Your task to perform on an android device: View the shopping cart on newegg. Add acer nitro to the cart on newegg, then select checkout. Image 0: 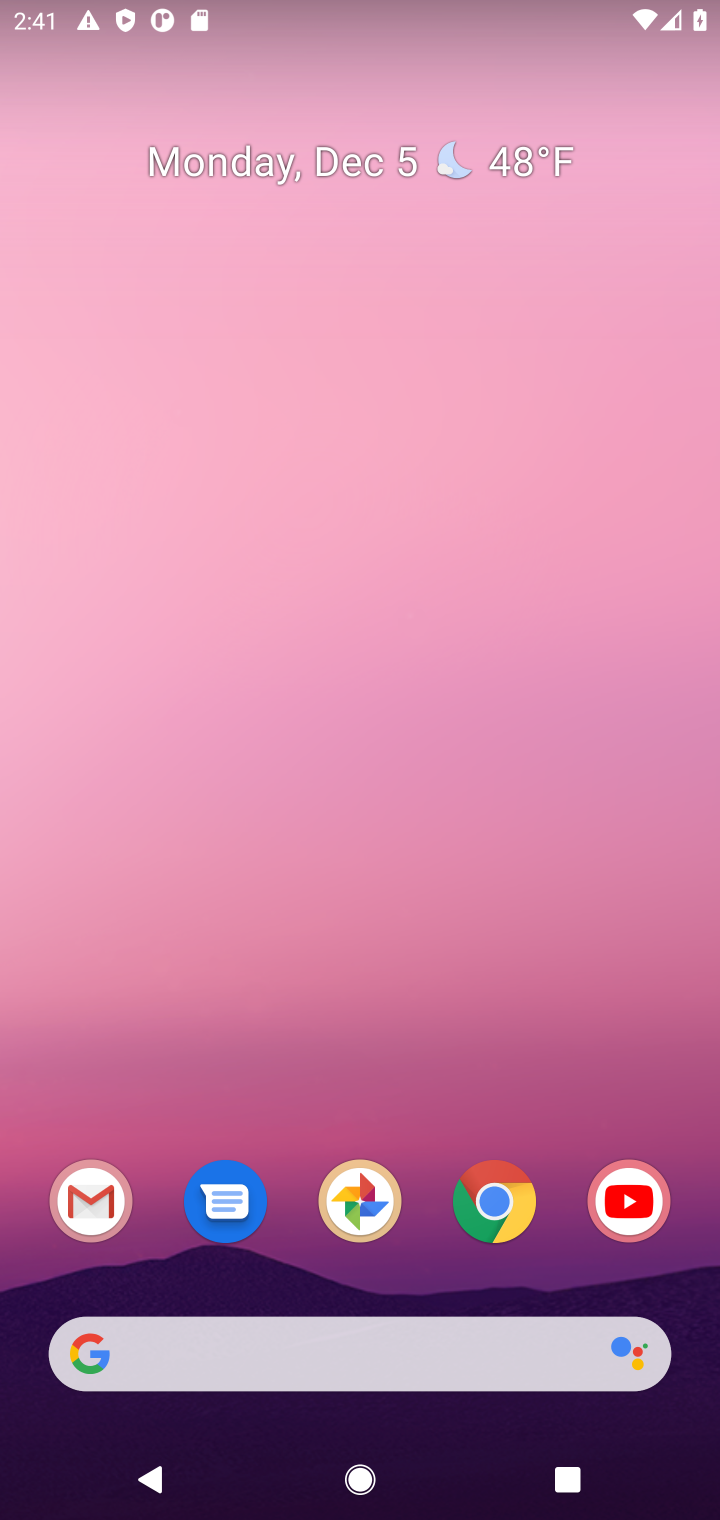
Step 0: click (479, 1211)
Your task to perform on an android device: View the shopping cart on newegg. Add acer nitro to the cart on newegg, then select checkout. Image 1: 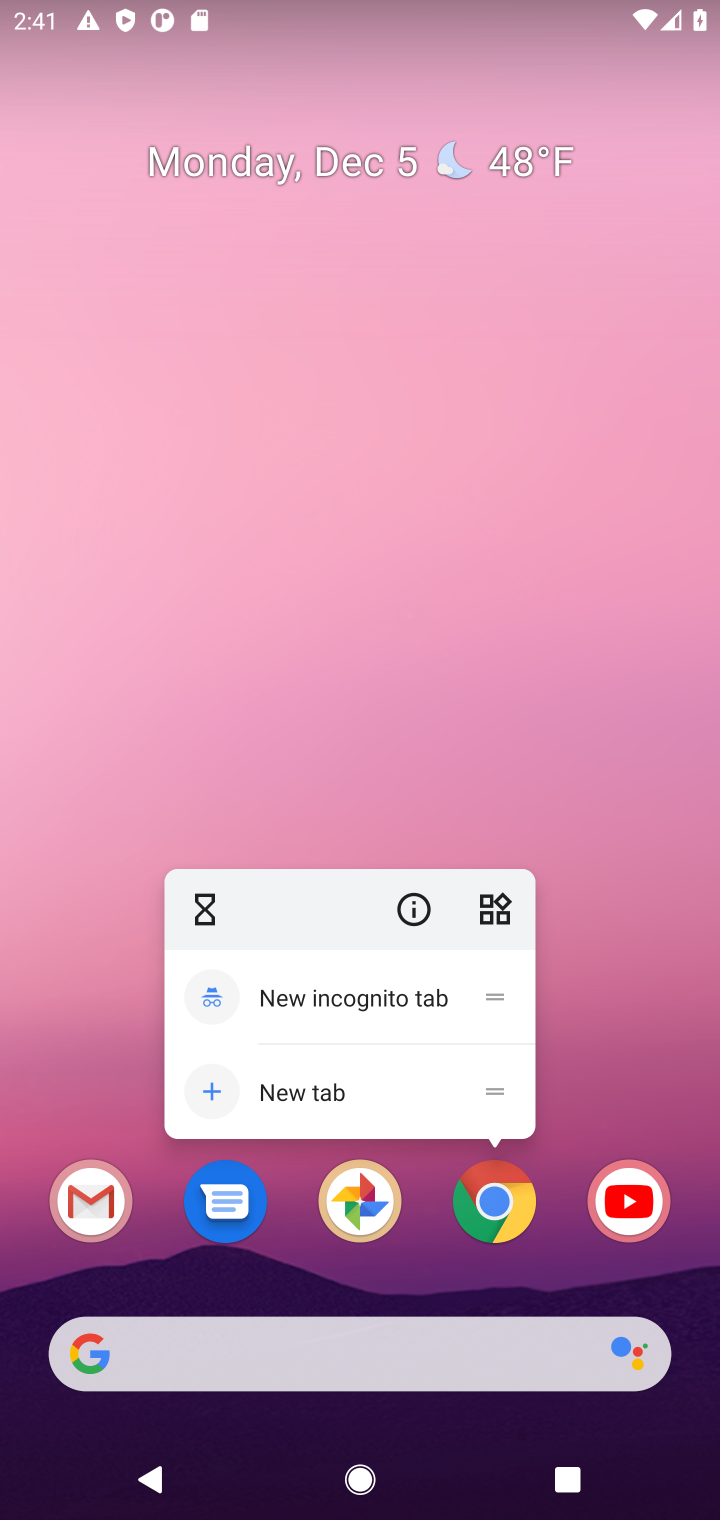
Step 1: click (503, 1198)
Your task to perform on an android device: View the shopping cart on newegg. Add acer nitro to the cart on newegg, then select checkout. Image 2: 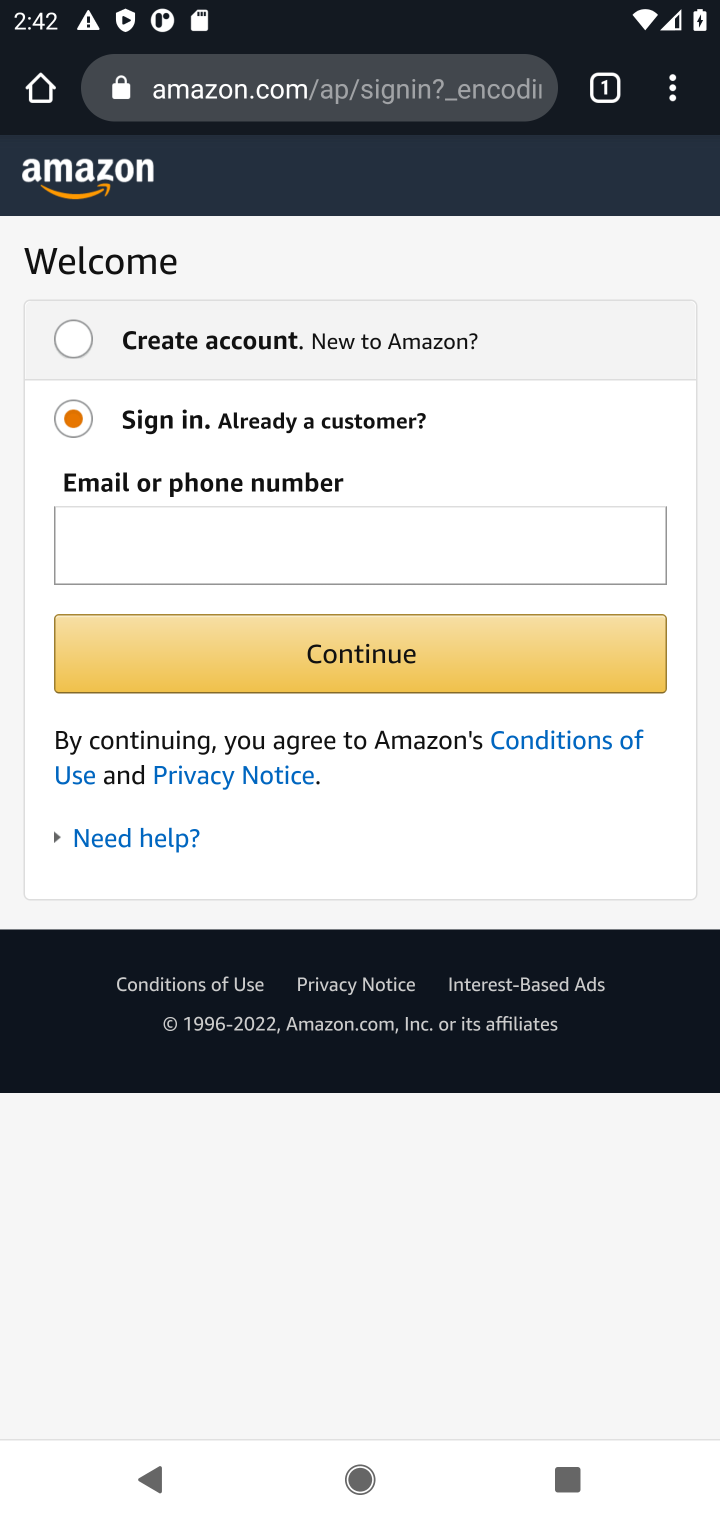
Step 2: click (363, 88)
Your task to perform on an android device: View the shopping cart on newegg. Add acer nitro to the cart on newegg, then select checkout. Image 3: 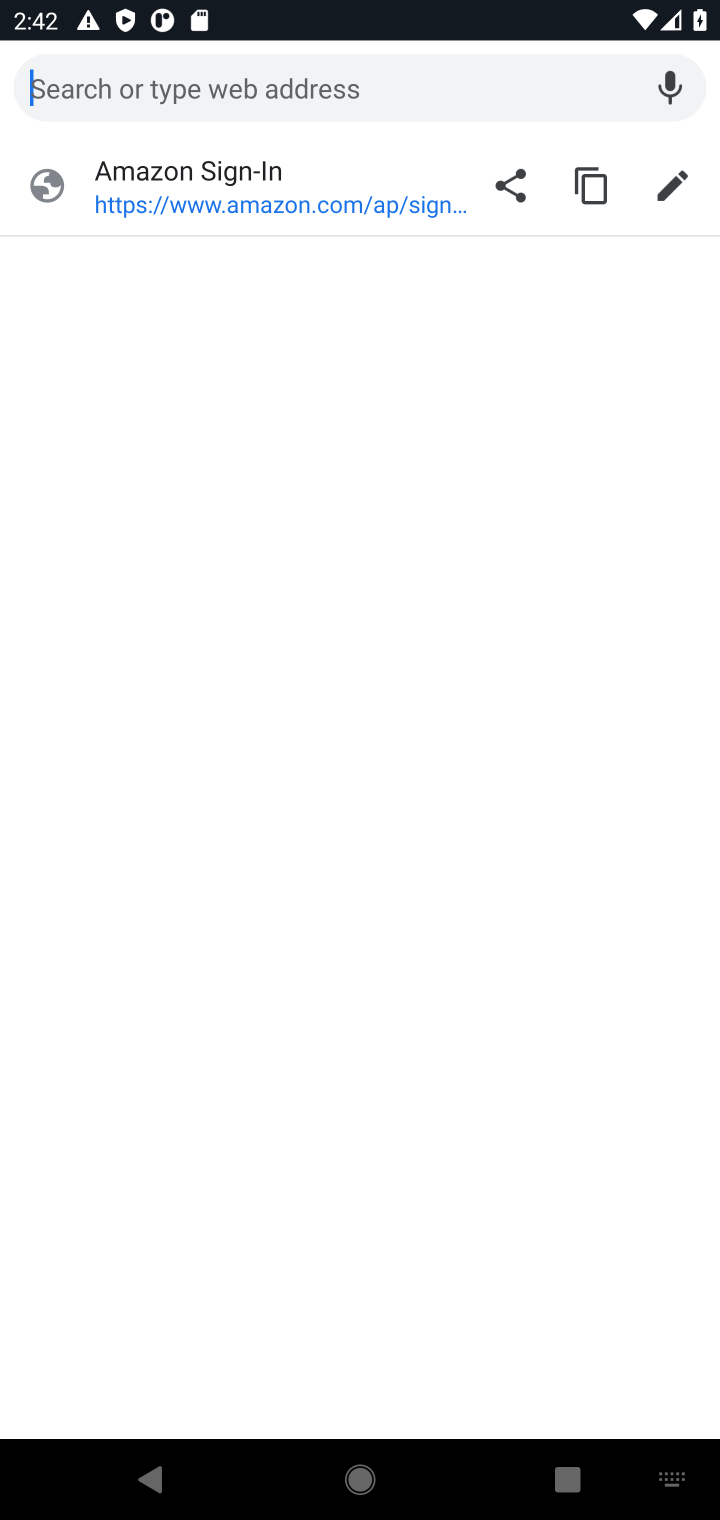
Step 3: type "newegg"
Your task to perform on an android device: View the shopping cart on newegg. Add acer nitro to the cart on newegg, then select checkout. Image 4: 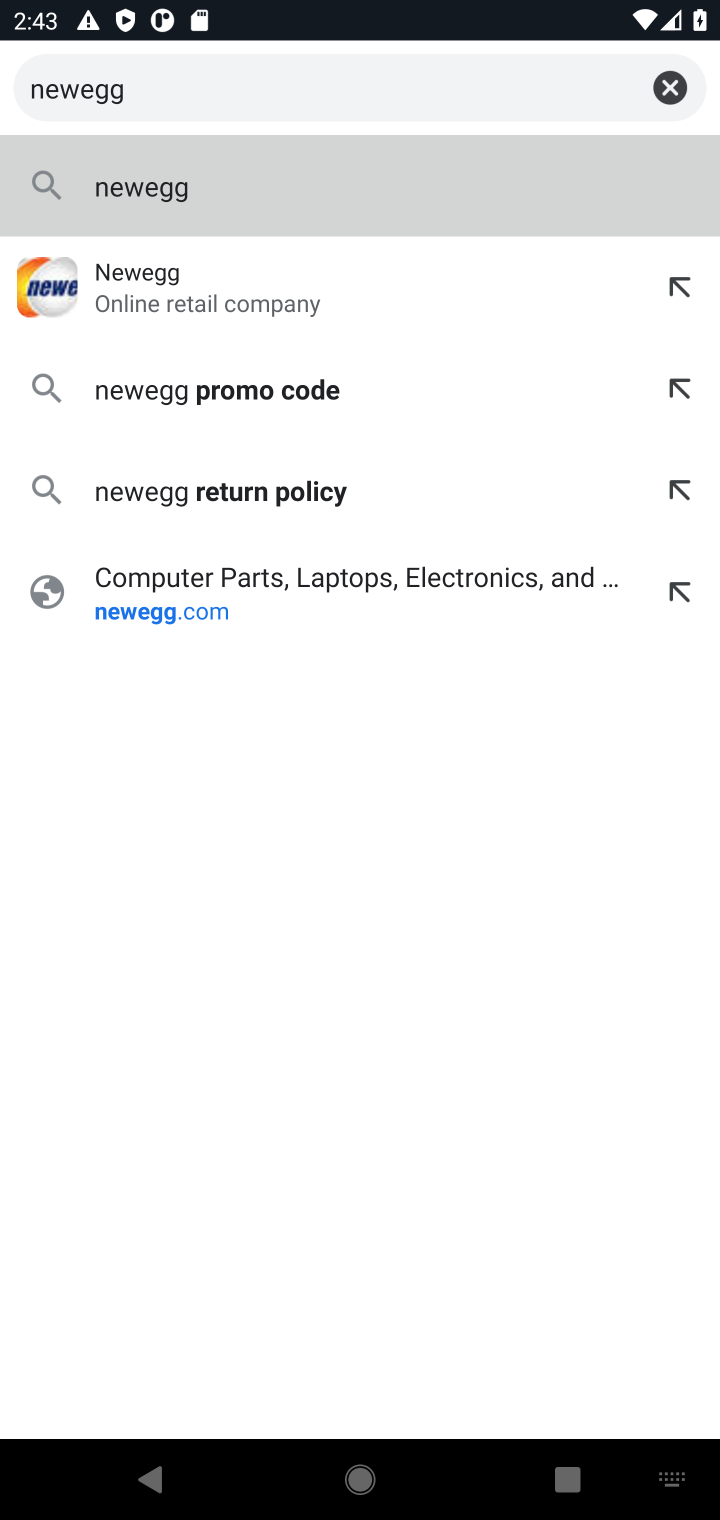
Step 4: click (205, 293)
Your task to perform on an android device: View the shopping cart on newegg. Add acer nitro to the cart on newegg, then select checkout. Image 5: 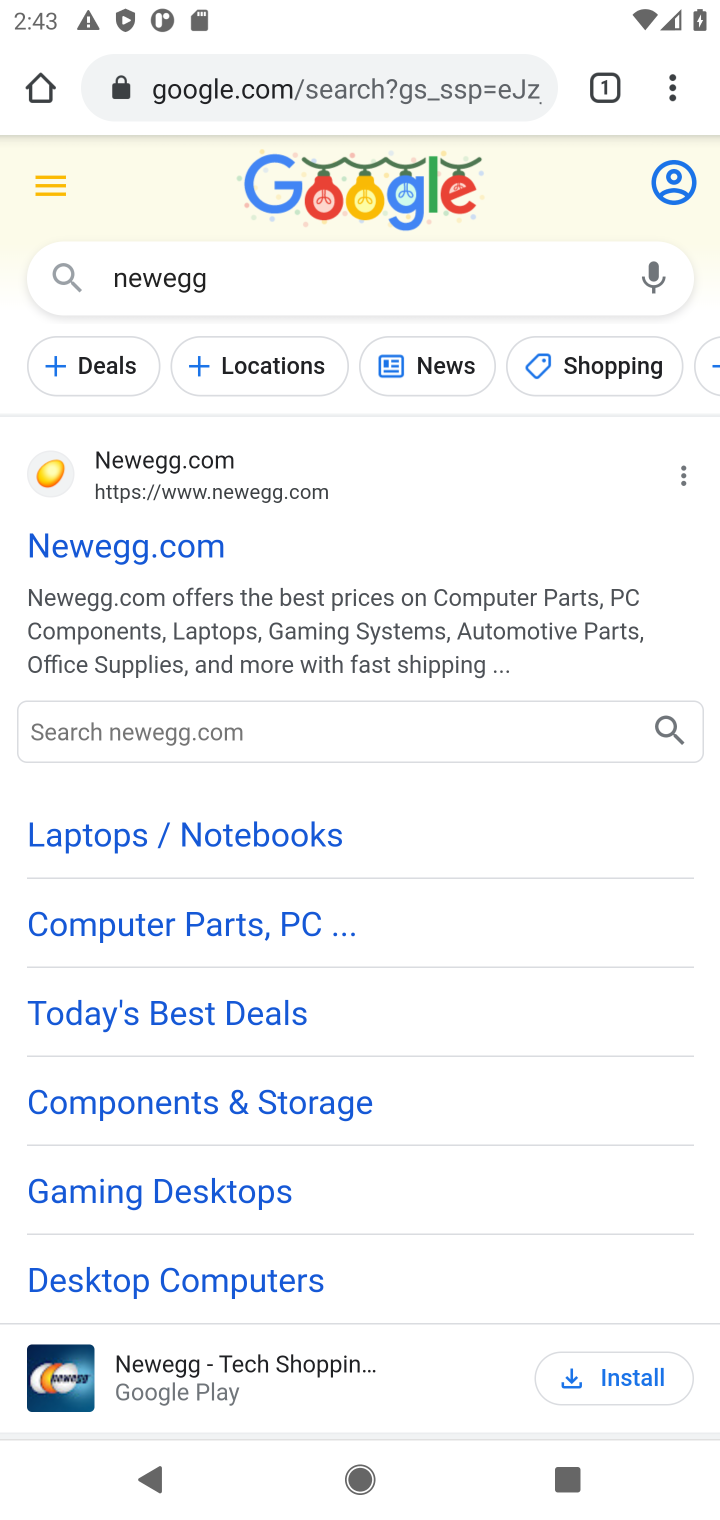
Step 5: click (163, 559)
Your task to perform on an android device: View the shopping cart on newegg. Add acer nitro to the cart on newegg, then select checkout. Image 6: 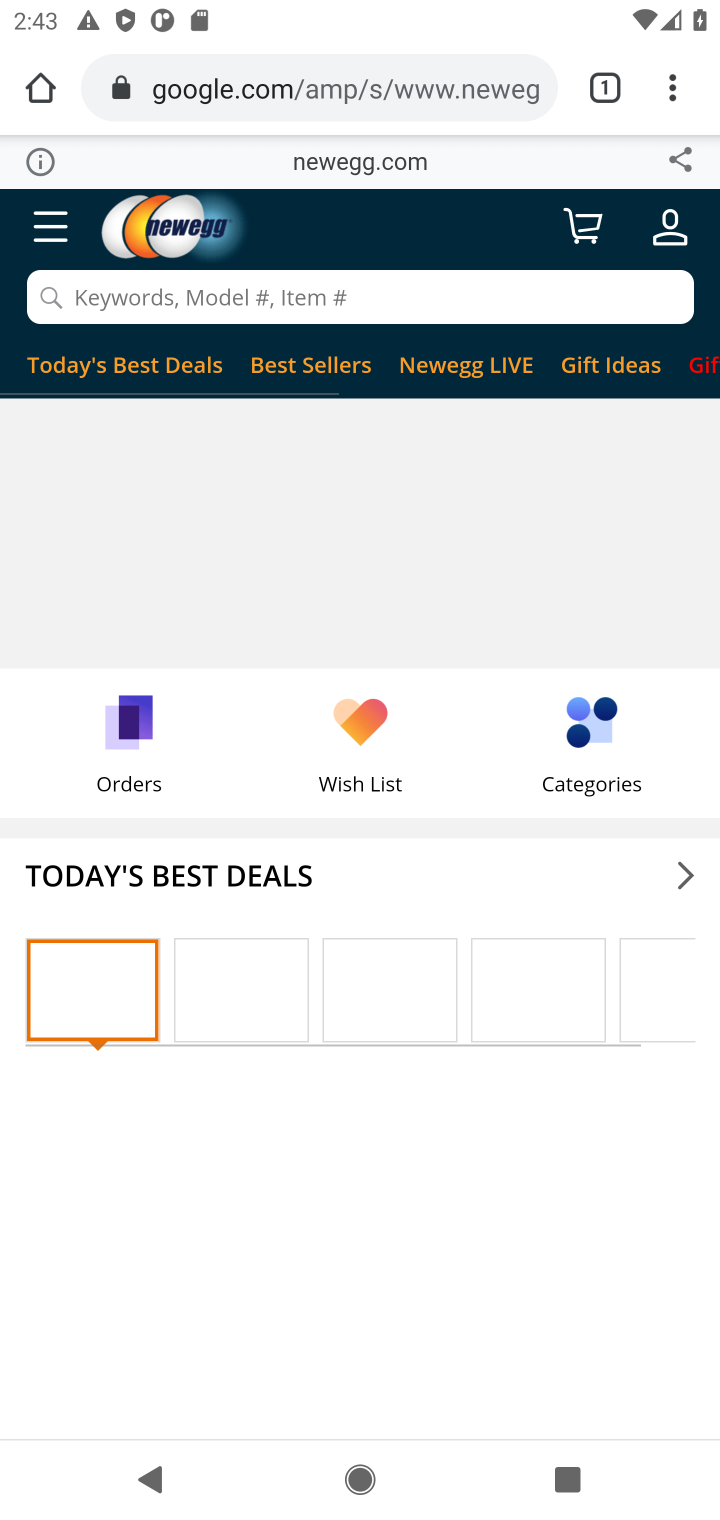
Step 6: click (257, 300)
Your task to perform on an android device: View the shopping cart on newegg. Add acer nitro to the cart on newegg, then select checkout. Image 7: 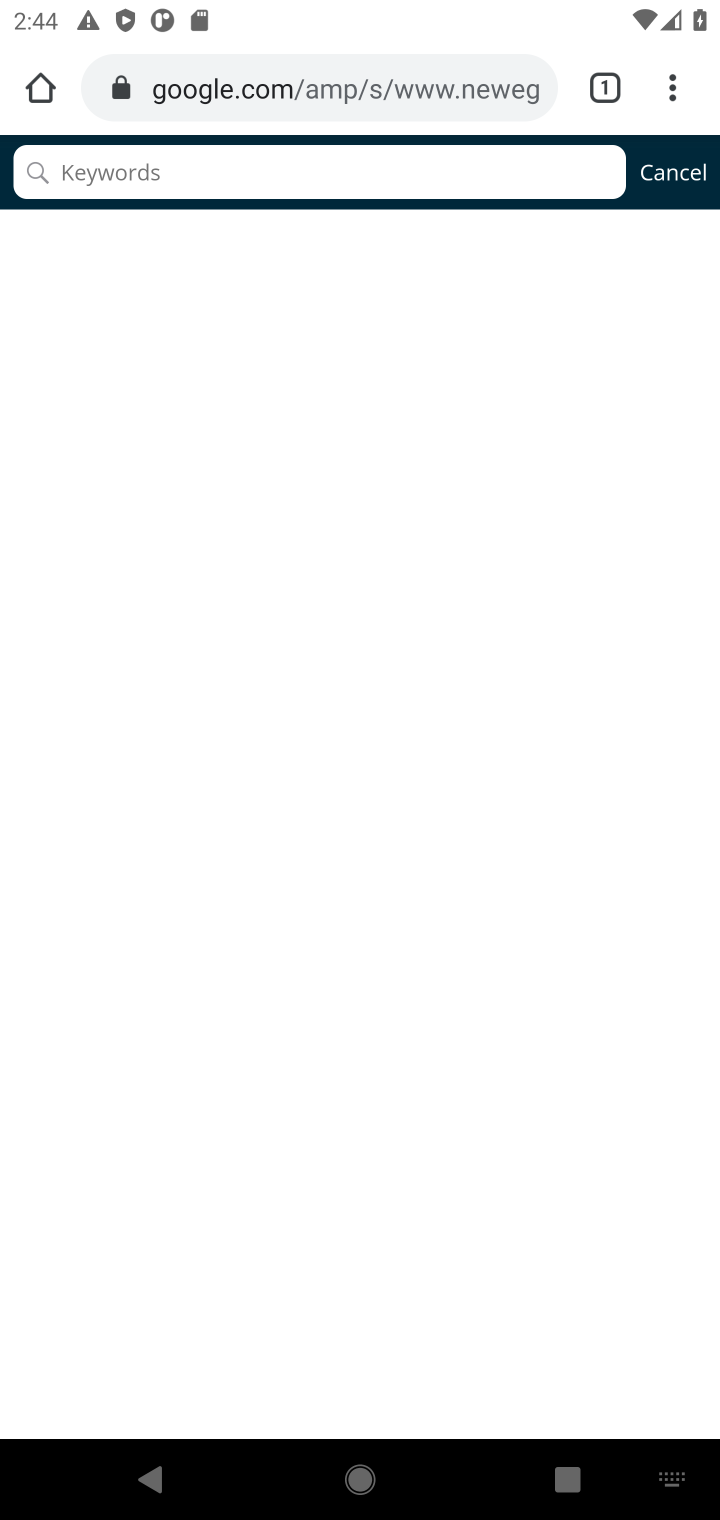
Step 7: type "acer nitro"
Your task to perform on an android device: View the shopping cart on newegg. Add acer nitro to the cart on newegg, then select checkout. Image 8: 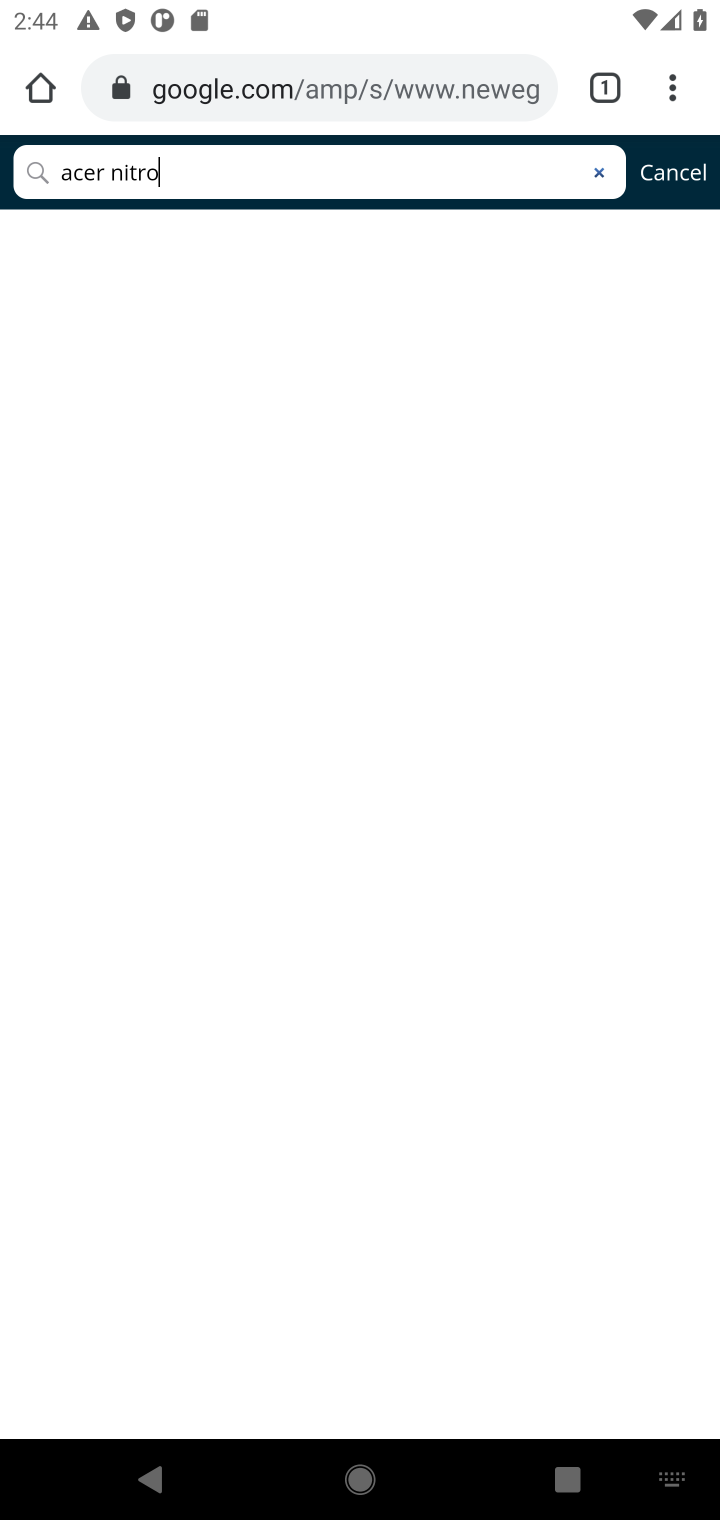
Step 8: task complete